Your task to perform on an android device: Go to CNN.com Image 0: 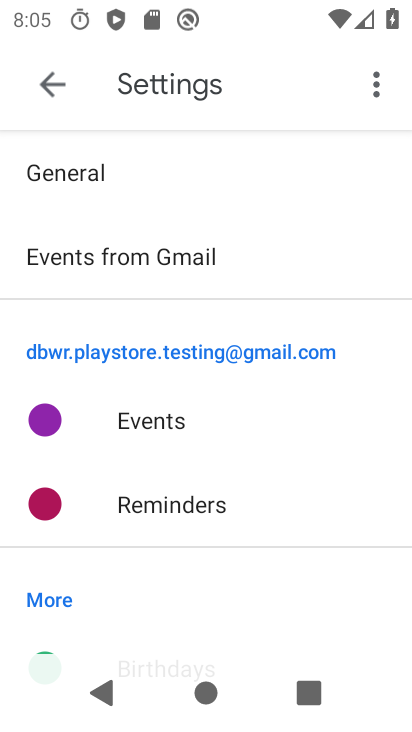
Step 0: press back button
Your task to perform on an android device: Go to CNN.com Image 1: 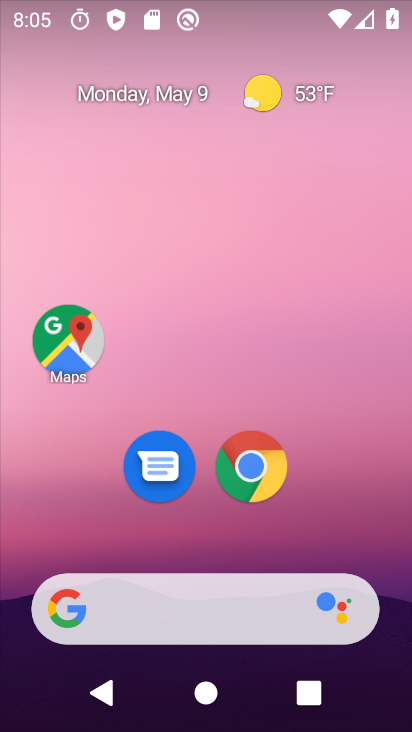
Step 1: click (251, 463)
Your task to perform on an android device: Go to CNN.com Image 2: 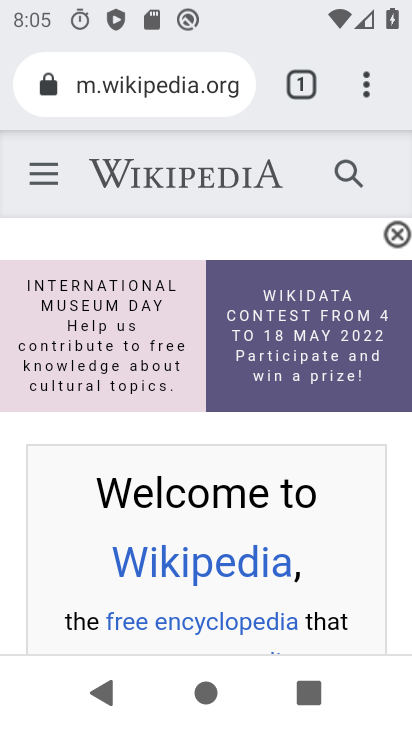
Step 2: click (183, 98)
Your task to perform on an android device: Go to CNN.com Image 3: 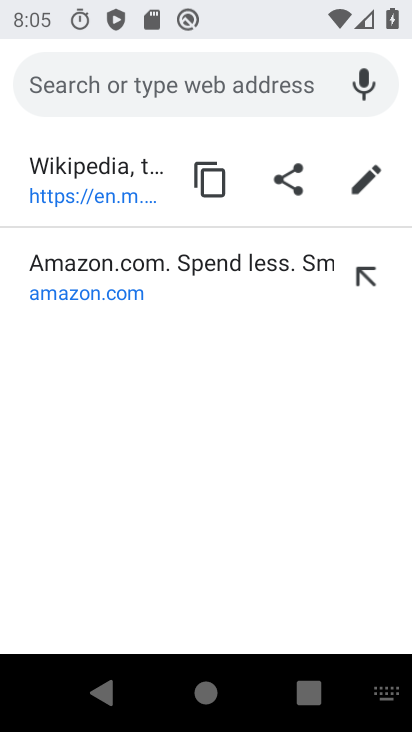
Step 3: click (173, 78)
Your task to perform on an android device: Go to CNN.com Image 4: 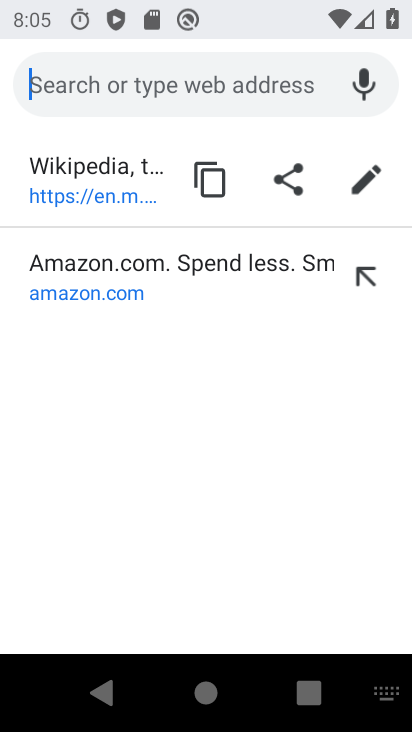
Step 4: type "CNN.com"
Your task to perform on an android device: Go to CNN.com Image 5: 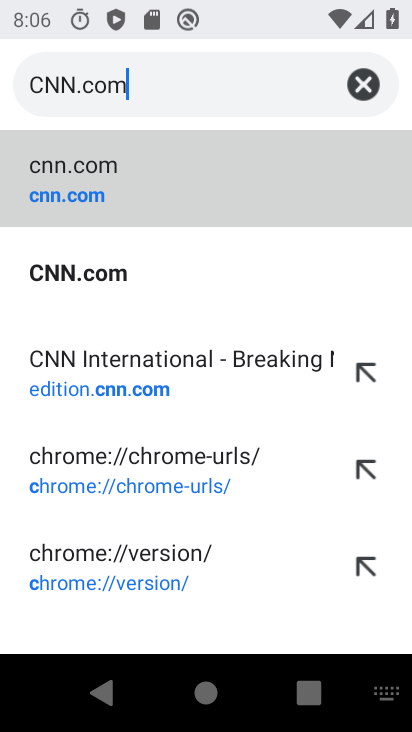
Step 5: type ""
Your task to perform on an android device: Go to CNN.com Image 6: 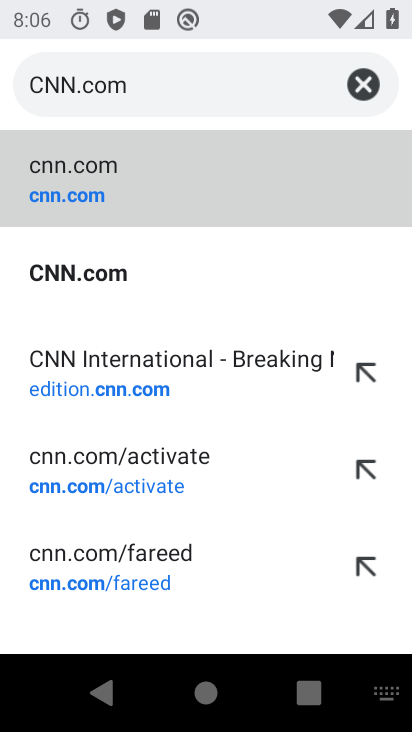
Step 6: click (100, 273)
Your task to perform on an android device: Go to CNN.com Image 7: 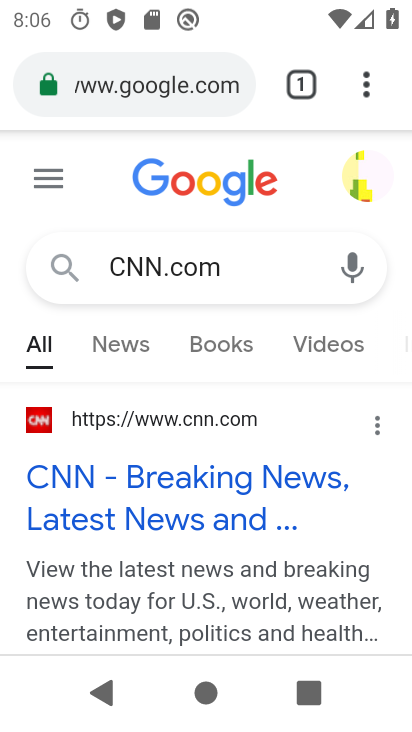
Step 7: click (152, 486)
Your task to perform on an android device: Go to CNN.com Image 8: 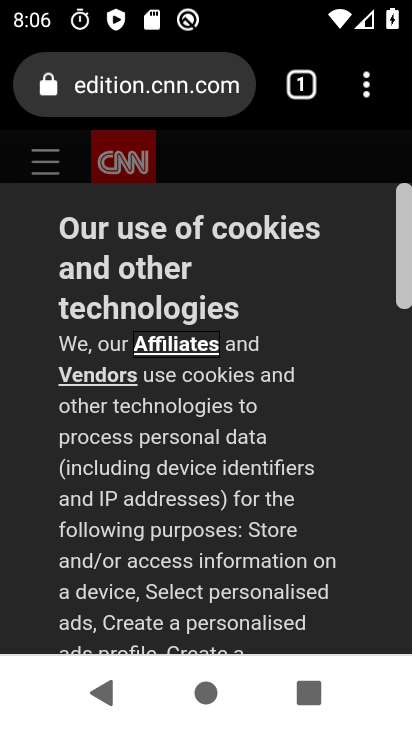
Step 8: task complete